Your task to perform on an android device: What is the recent news? Image 0: 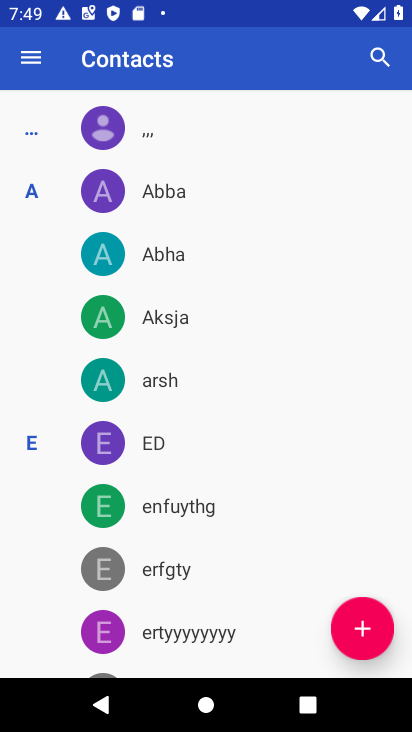
Step 0: press home button
Your task to perform on an android device: What is the recent news? Image 1: 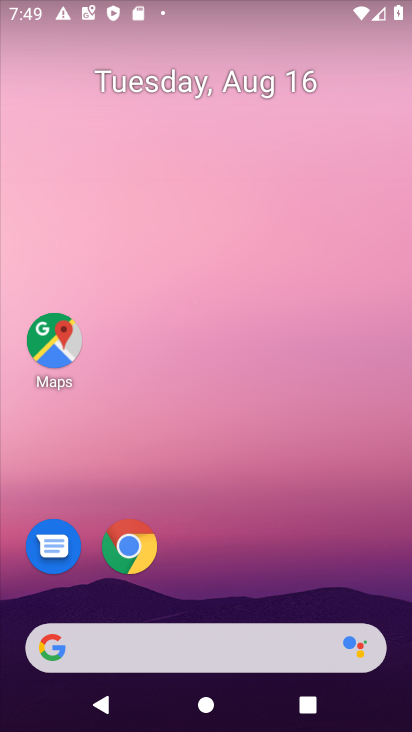
Step 1: click (230, 641)
Your task to perform on an android device: What is the recent news? Image 2: 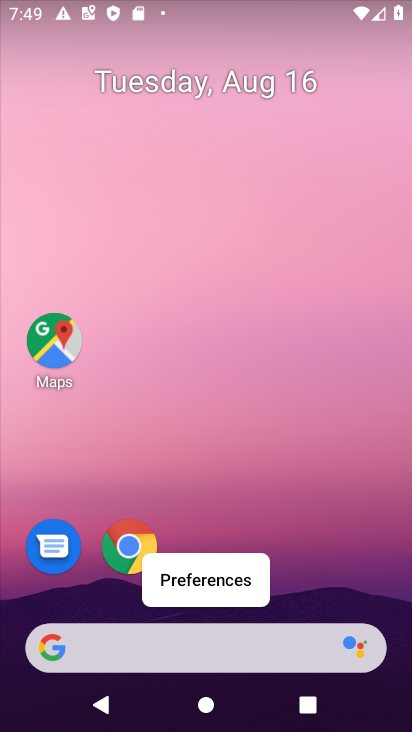
Step 2: click (132, 665)
Your task to perform on an android device: What is the recent news? Image 3: 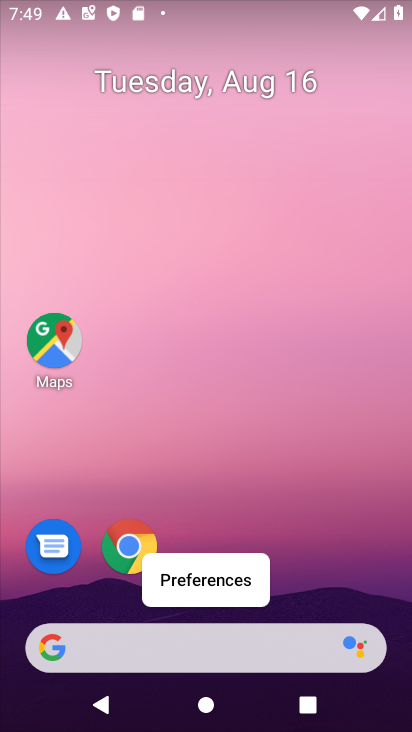
Step 3: click (132, 665)
Your task to perform on an android device: What is the recent news? Image 4: 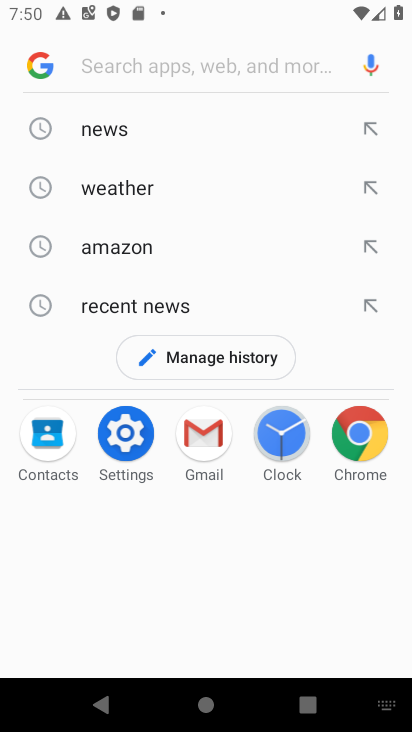
Step 4: click (139, 306)
Your task to perform on an android device: What is the recent news? Image 5: 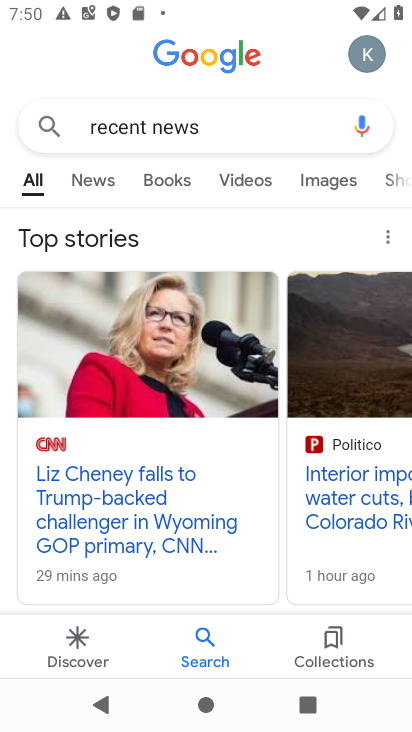
Step 5: drag from (364, 359) to (97, 336)
Your task to perform on an android device: What is the recent news? Image 6: 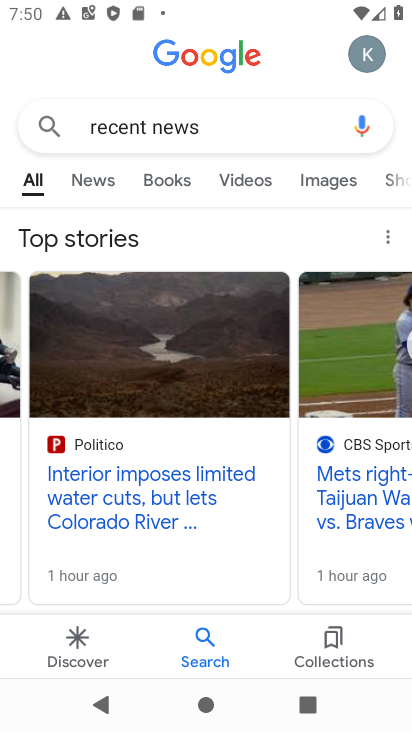
Step 6: click (94, 176)
Your task to perform on an android device: What is the recent news? Image 7: 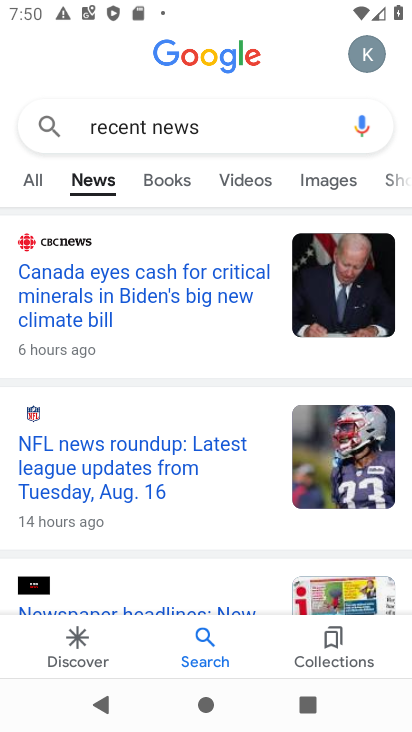
Step 7: task complete